Your task to perform on an android device: set the timer Image 0: 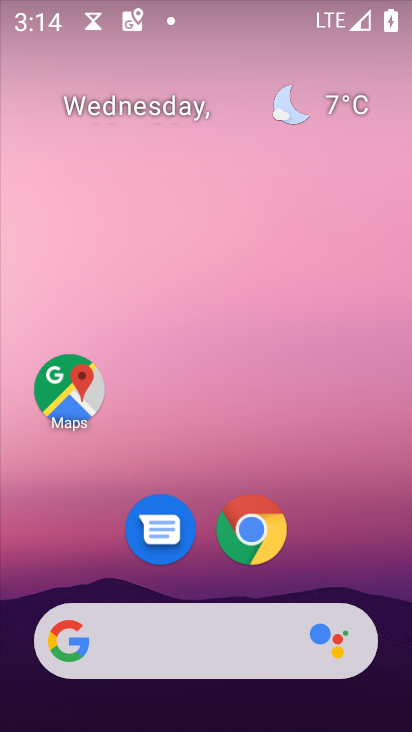
Step 0: drag from (320, 487) to (280, 34)
Your task to perform on an android device: set the timer Image 1: 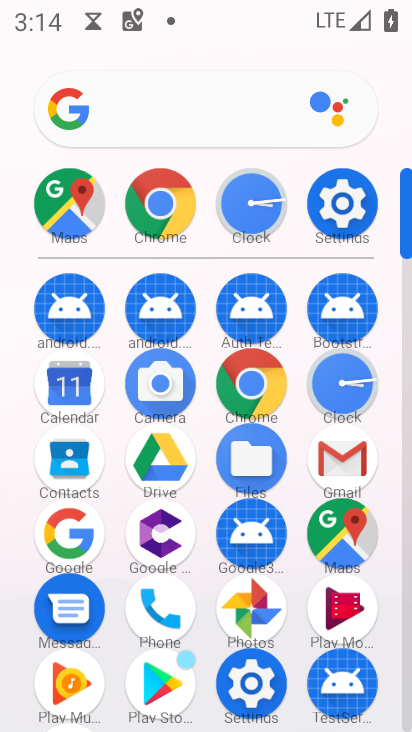
Step 1: click (350, 383)
Your task to perform on an android device: set the timer Image 2: 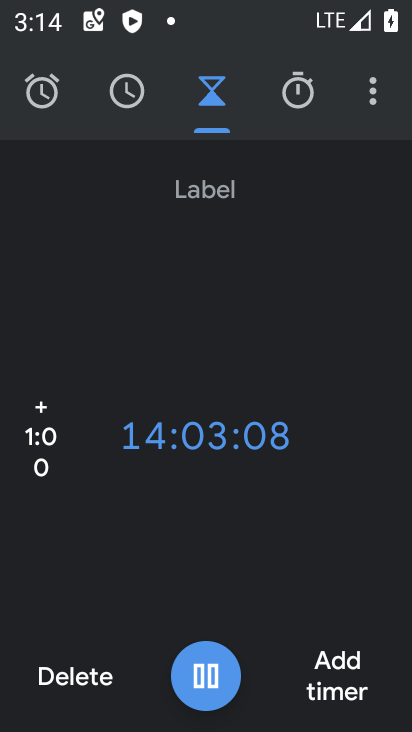
Step 2: task complete